Your task to perform on an android device: set the stopwatch Image 0: 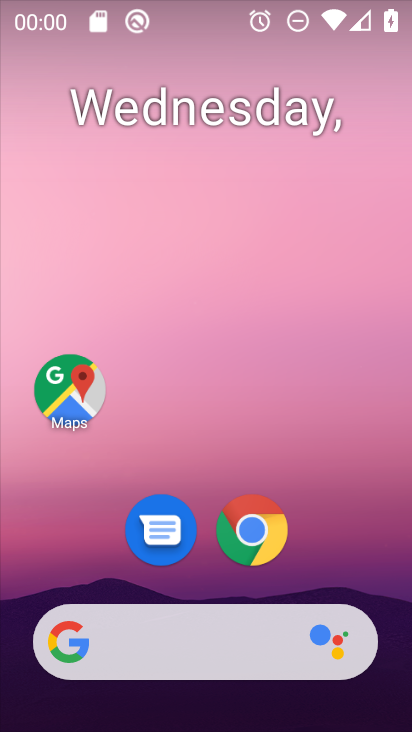
Step 0: drag from (336, 497) to (331, 58)
Your task to perform on an android device: set the stopwatch Image 1: 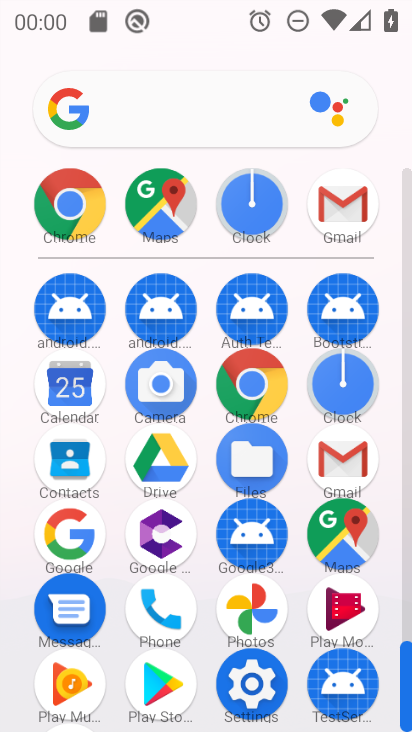
Step 1: click (331, 393)
Your task to perform on an android device: set the stopwatch Image 2: 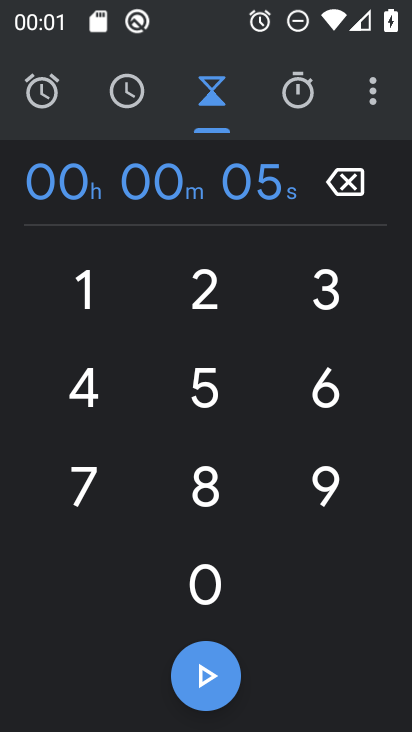
Step 2: click (282, 93)
Your task to perform on an android device: set the stopwatch Image 3: 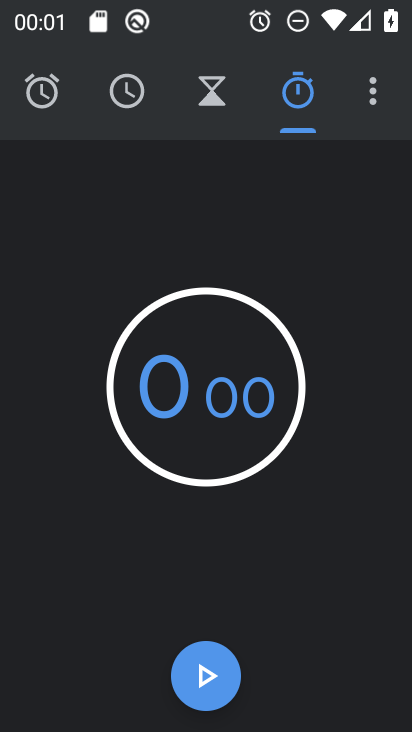
Step 3: click (211, 673)
Your task to perform on an android device: set the stopwatch Image 4: 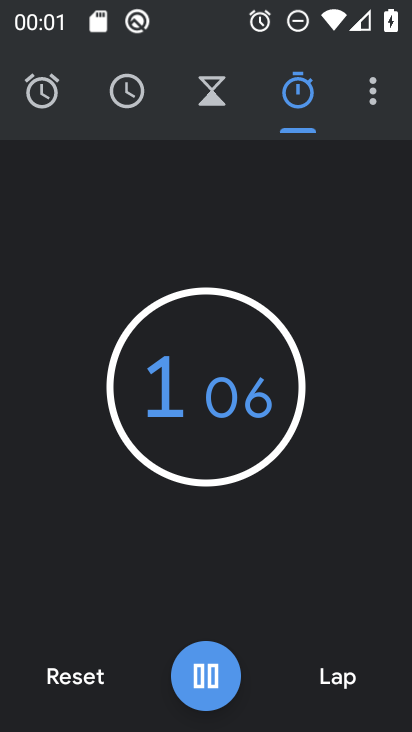
Step 4: click (211, 670)
Your task to perform on an android device: set the stopwatch Image 5: 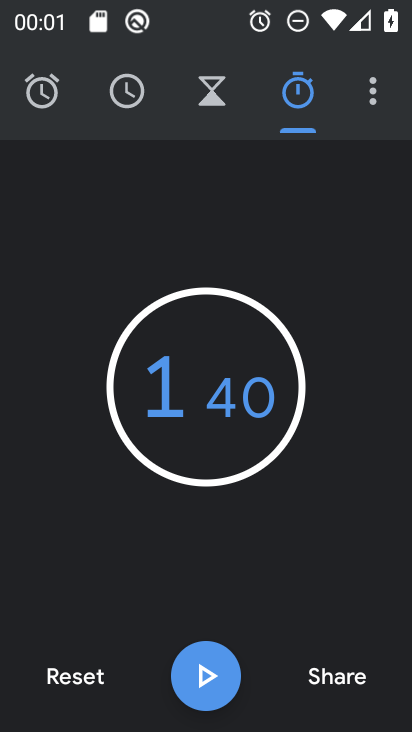
Step 5: task complete